Your task to perform on an android device: Show the shopping cart on costco.com. Search for acer nitro on costco.com, select the first entry, and add it to the cart. Image 0: 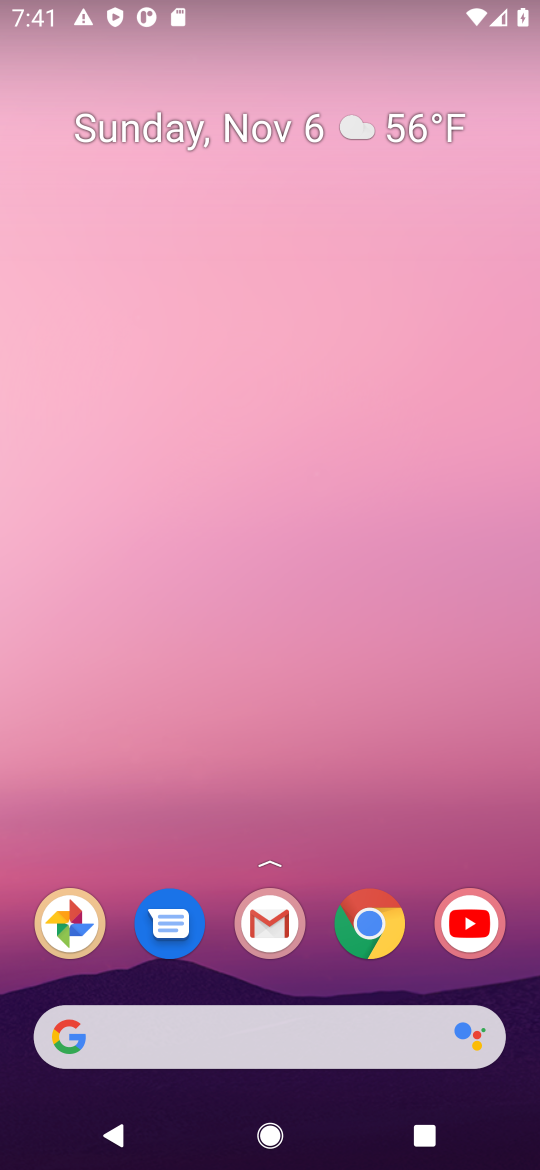
Step 0: click (363, 932)
Your task to perform on an android device: Show the shopping cart on costco.com. Search for acer nitro on costco.com, select the first entry, and add it to the cart. Image 1: 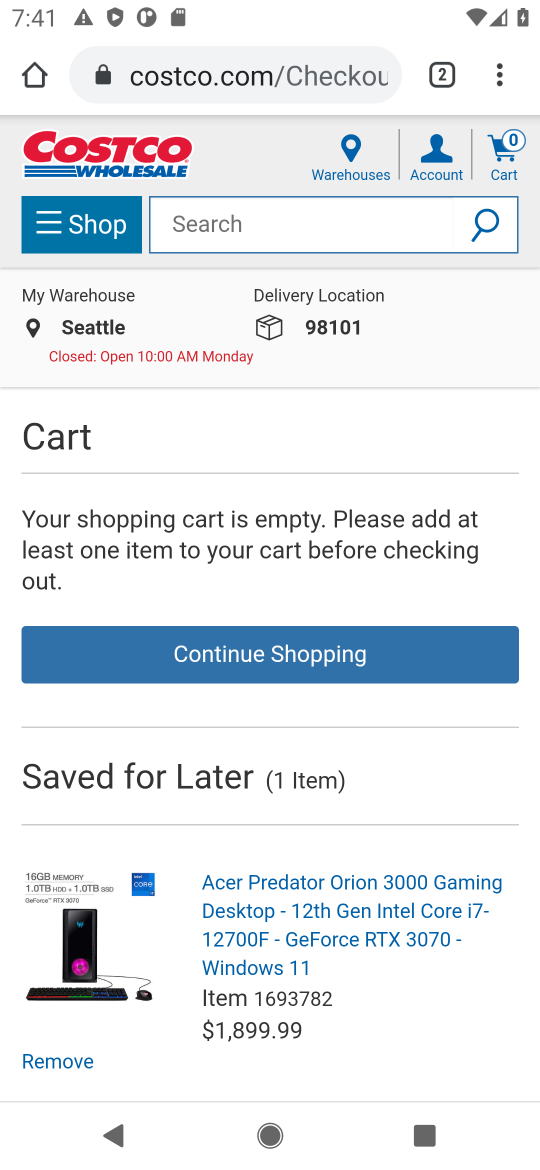
Step 1: click (508, 151)
Your task to perform on an android device: Show the shopping cart on costco.com. Search for acer nitro on costco.com, select the first entry, and add it to the cart. Image 2: 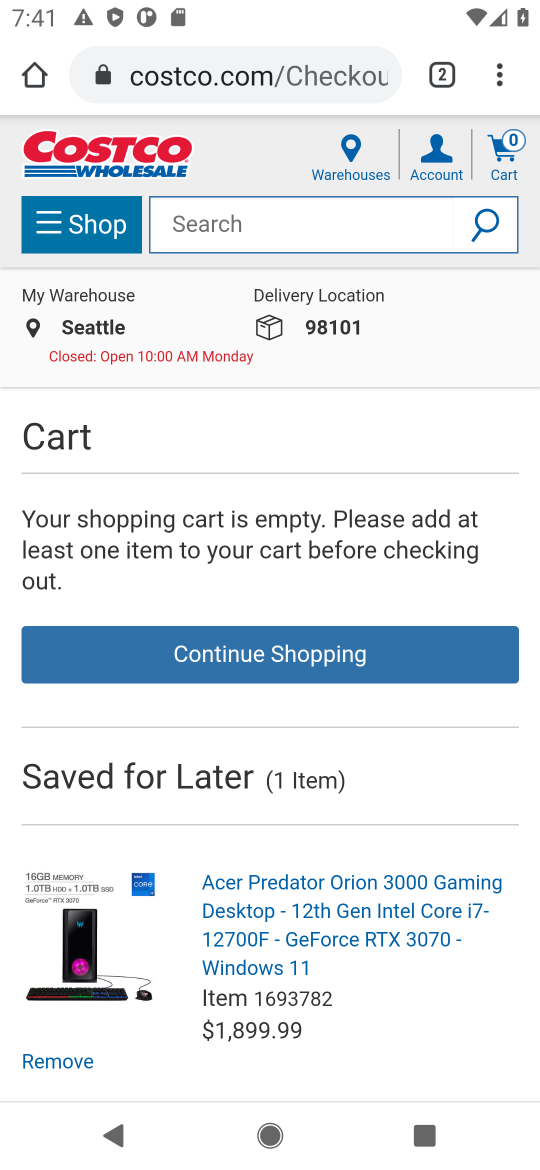
Step 2: click (305, 217)
Your task to perform on an android device: Show the shopping cart on costco.com. Search for acer nitro on costco.com, select the first entry, and add it to the cart. Image 3: 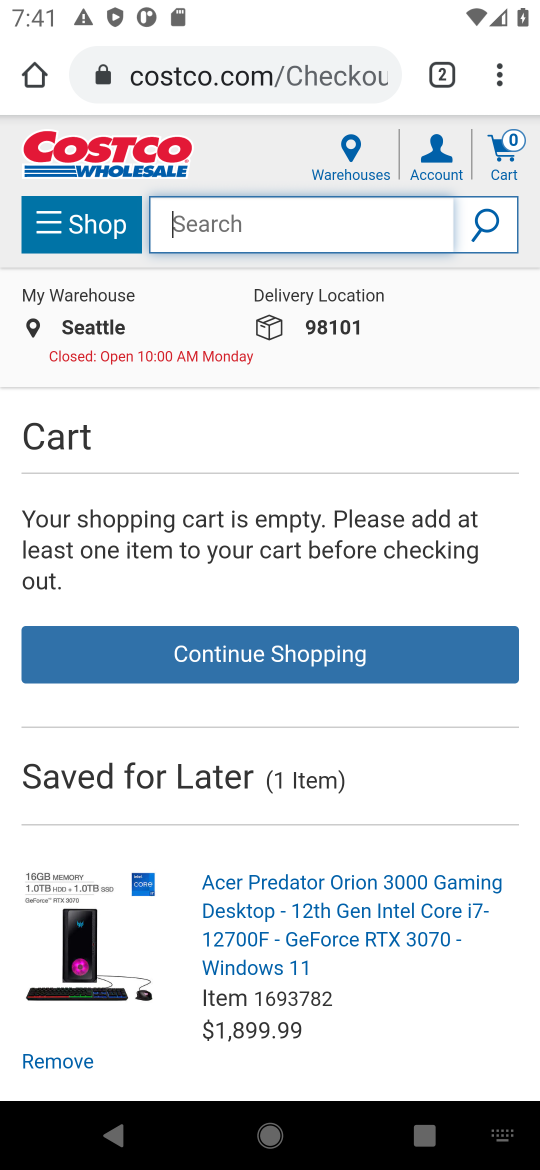
Step 3: type "acer nitro"
Your task to perform on an android device: Show the shopping cart on costco.com. Search for acer nitro on costco.com, select the first entry, and add it to the cart. Image 4: 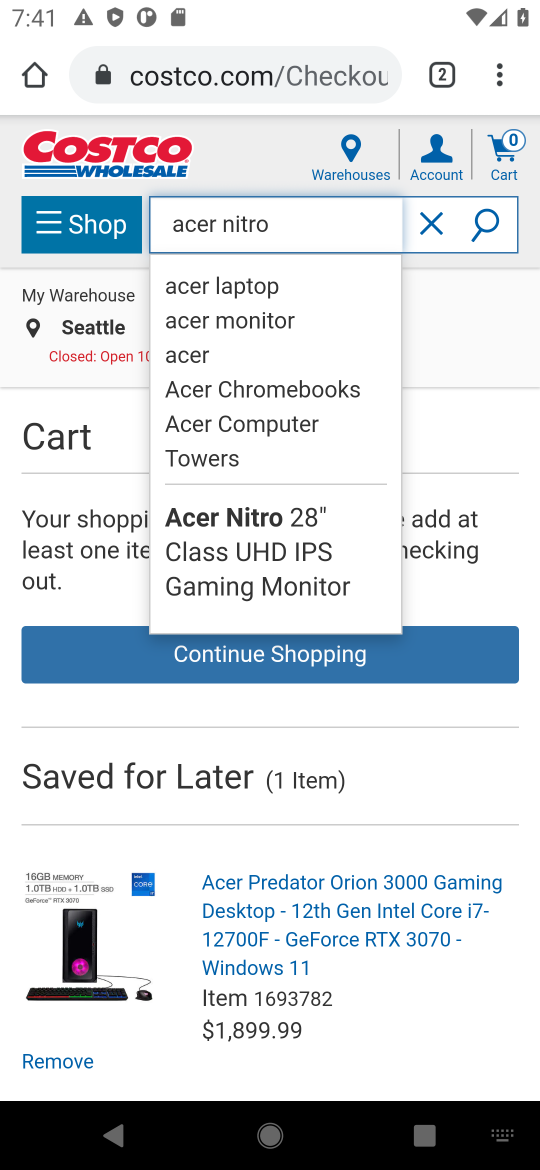
Step 4: click (480, 231)
Your task to perform on an android device: Show the shopping cart on costco.com. Search for acer nitro on costco.com, select the first entry, and add it to the cart. Image 5: 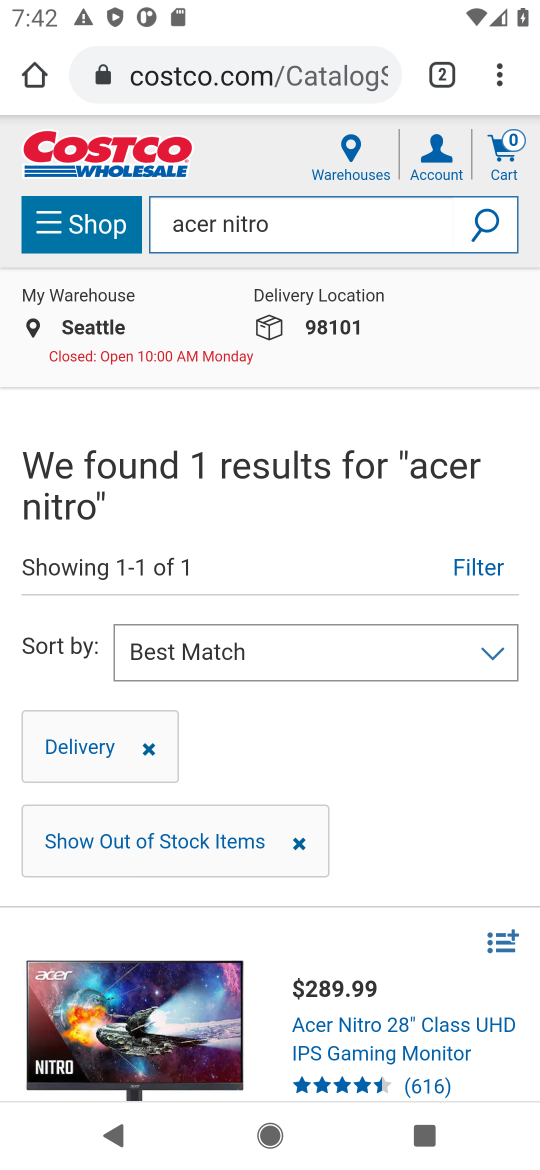
Step 5: drag from (294, 1006) to (301, 561)
Your task to perform on an android device: Show the shopping cart on costco.com. Search for acer nitro on costco.com, select the first entry, and add it to the cart. Image 6: 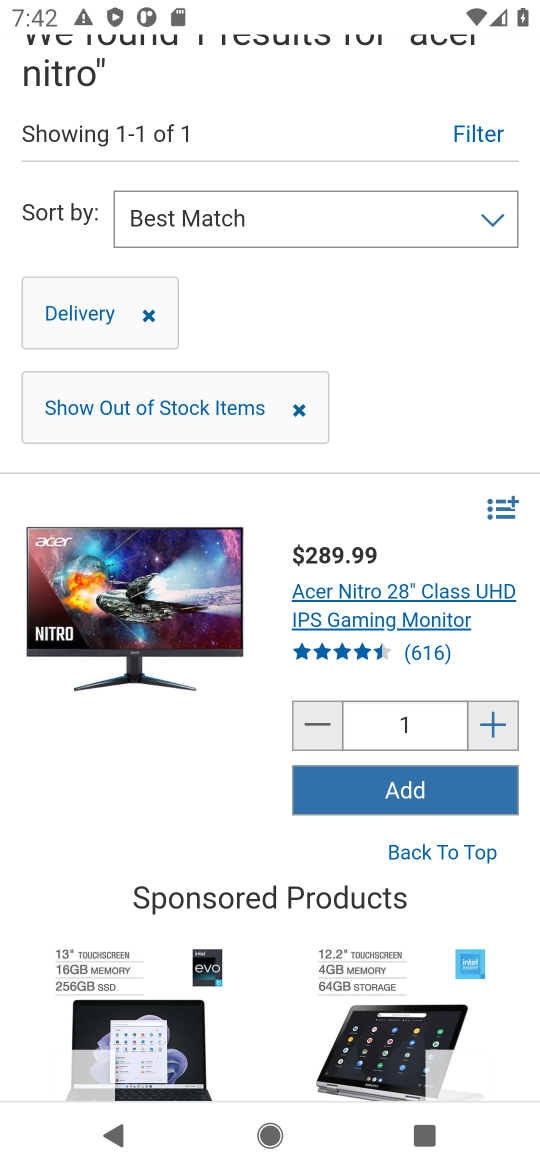
Step 6: click (416, 800)
Your task to perform on an android device: Show the shopping cart on costco.com. Search for acer nitro on costco.com, select the first entry, and add it to the cart. Image 7: 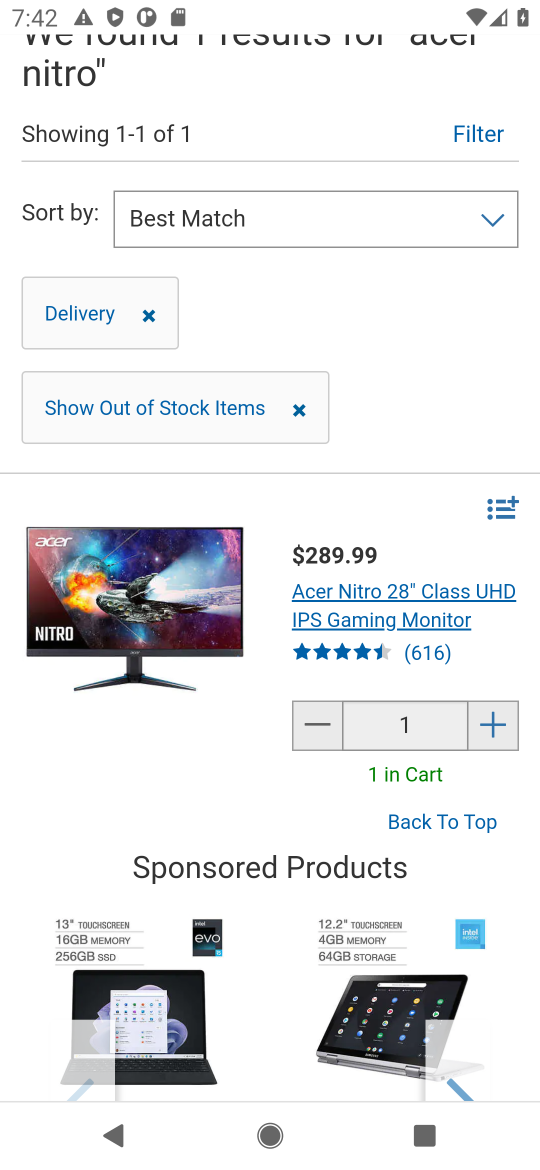
Step 7: task complete